Your task to perform on an android device: move a message to another label in the gmail app Image 0: 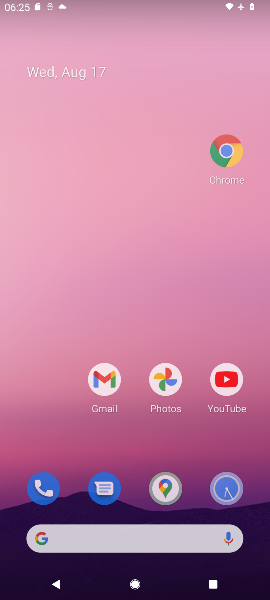
Step 0: press home button
Your task to perform on an android device: move a message to another label in the gmail app Image 1: 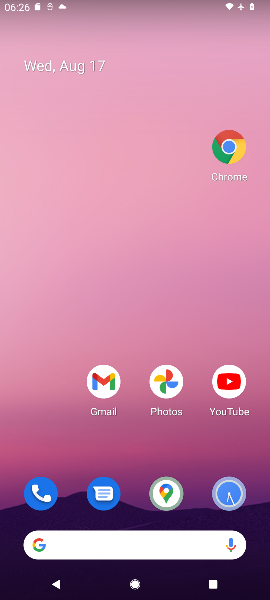
Step 1: click (102, 385)
Your task to perform on an android device: move a message to another label in the gmail app Image 2: 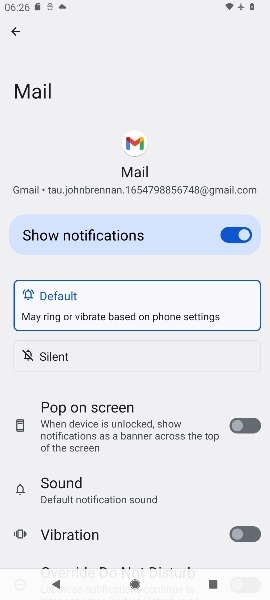
Step 2: press back button
Your task to perform on an android device: move a message to another label in the gmail app Image 3: 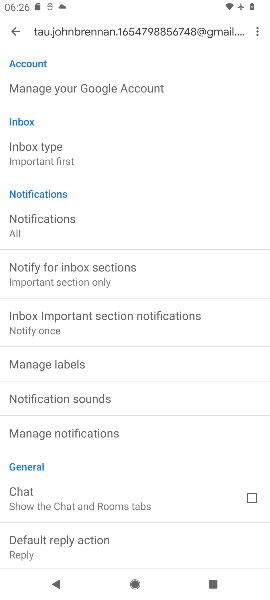
Step 3: press back button
Your task to perform on an android device: move a message to another label in the gmail app Image 4: 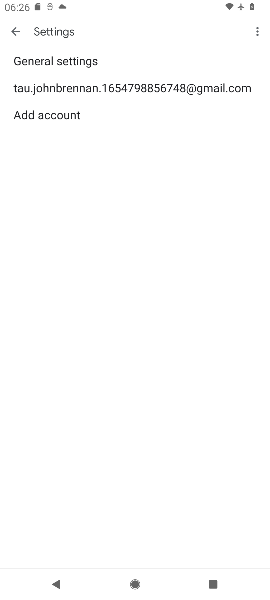
Step 4: press back button
Your task to perform on an android device: move a message to another label in the gmail app Image 5: 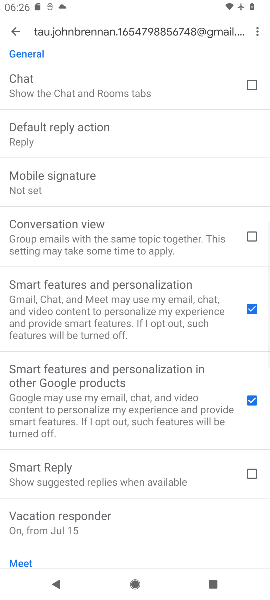
Step 5: press back button
Your task to perform on an android device: move a message to another label in the gmail app Image 6: 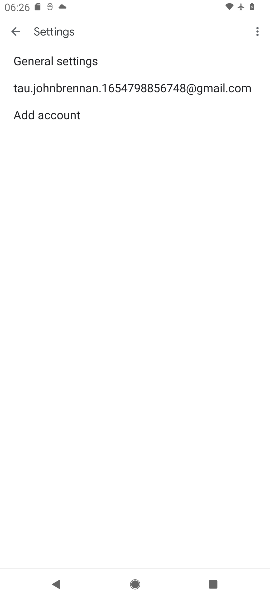
Step 6: press back button
Your task to perform on an android device: move a message to another label in the gmail app Image 7: 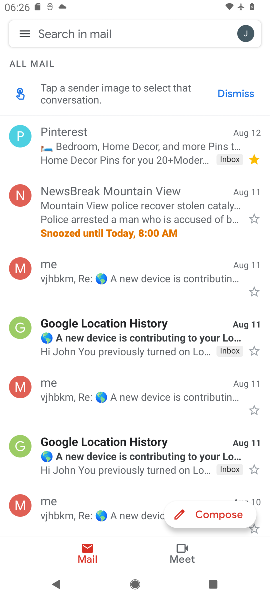
Step 7: click (128, 219)
Your task to perform on an android device: move a message to another label in the gmail app Image 8: 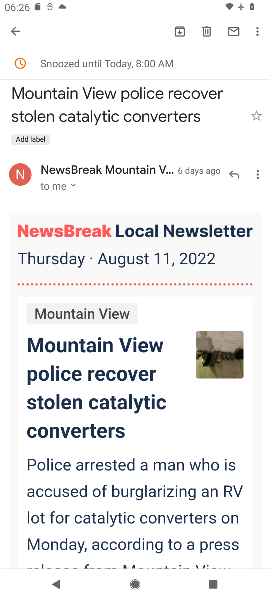
Step 8: click (257, 42)
Your task to perform on an android device: move a message to another label in the gmail app Image 9: 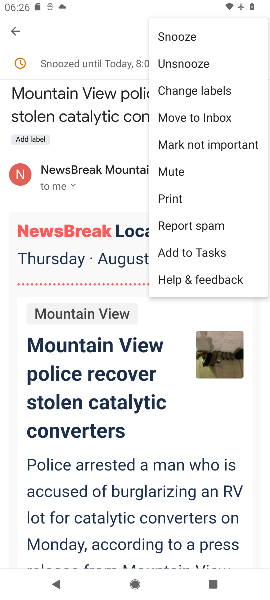
Step 9: click (207, 93)
Your task to perform on an android device: move a message to another label in the gmail app Image 10: 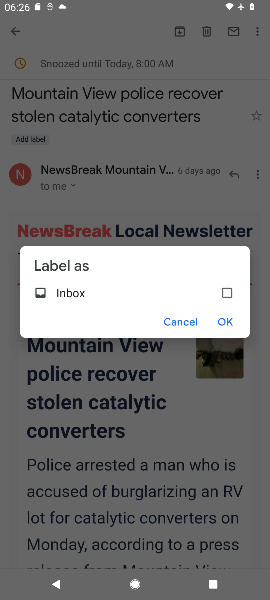
Step 10: click (234, 291)
Your task to perform on an android device: move a message to another label in the gmail app Image 11: 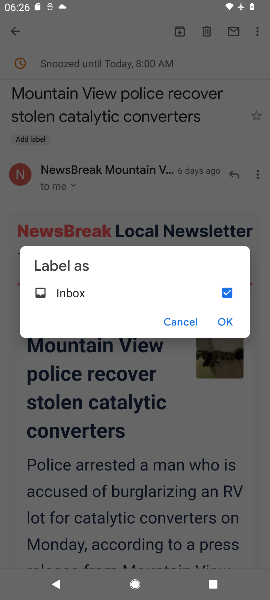
Step 11: click (221, 321)
Your task to perform on an android device: move a message to another label in the gmail app Image 12: 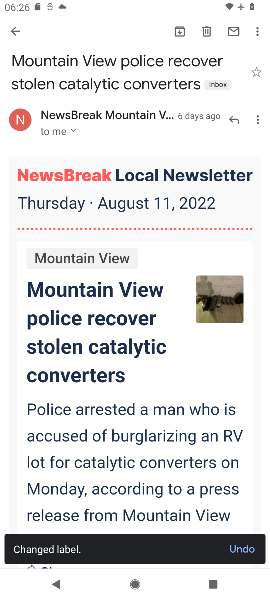
Step 12: task complete